Your task to perform on an android device: Add razer deathadder to the cart on costco Image 0: 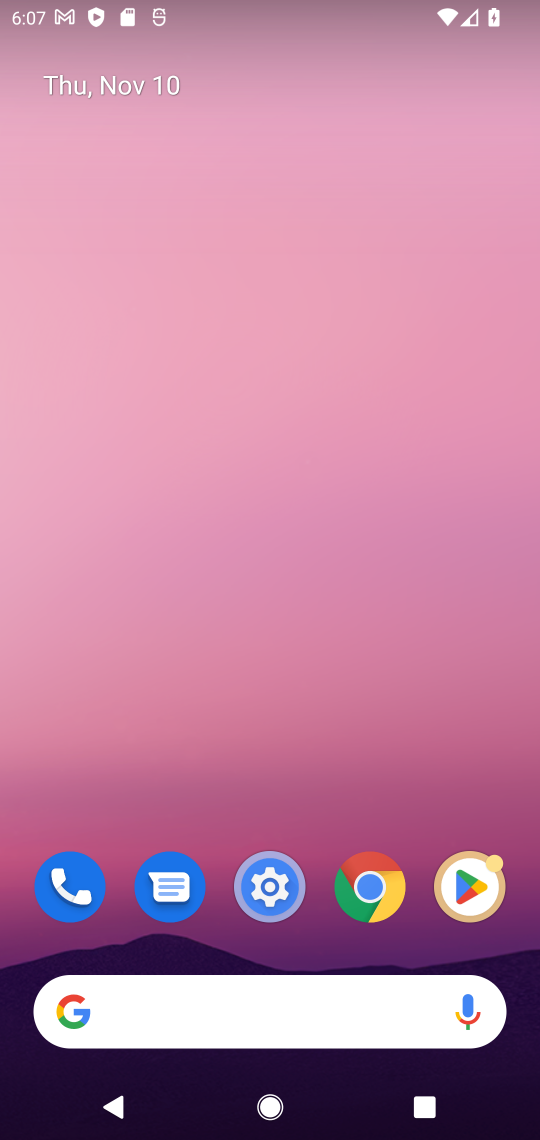
Step 0: click (162, 1006)
Your task to perform on an android device: Add razer deathadder to the cart on costco Image 1: 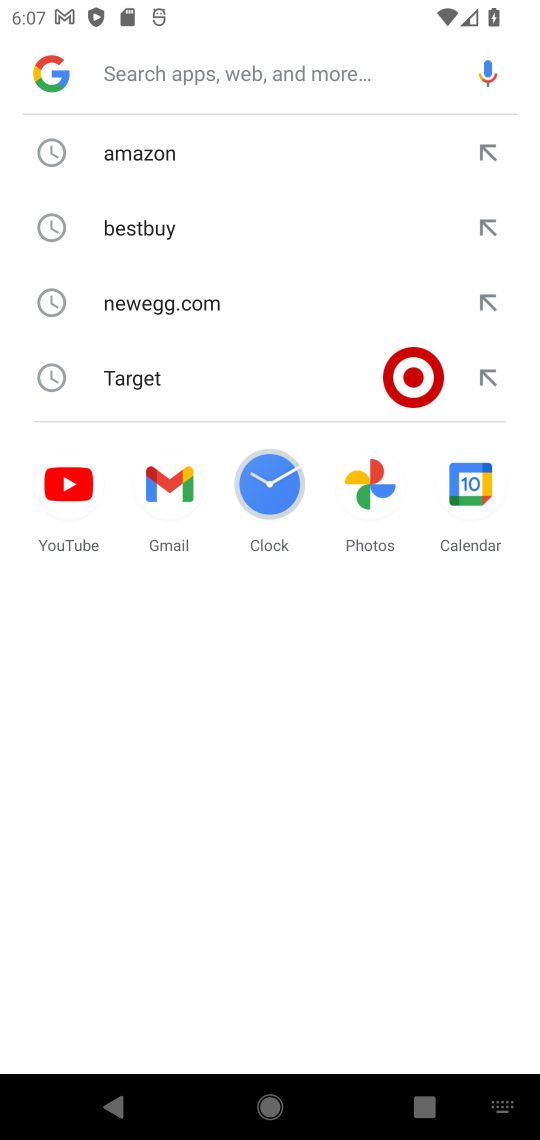
Step 1: type "costco"
Your task to perform on an android device: Add razer deathadder to the cart on costco Image 2: 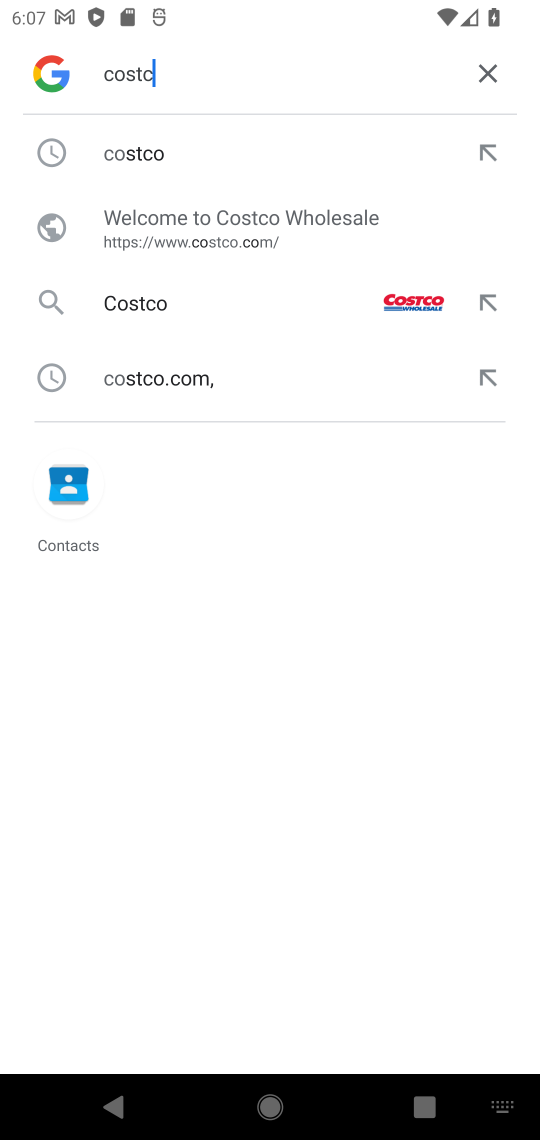
Step 2: type ""
Your task to perform on an android device: Add razer deathadder to the cart on costco Image 3: 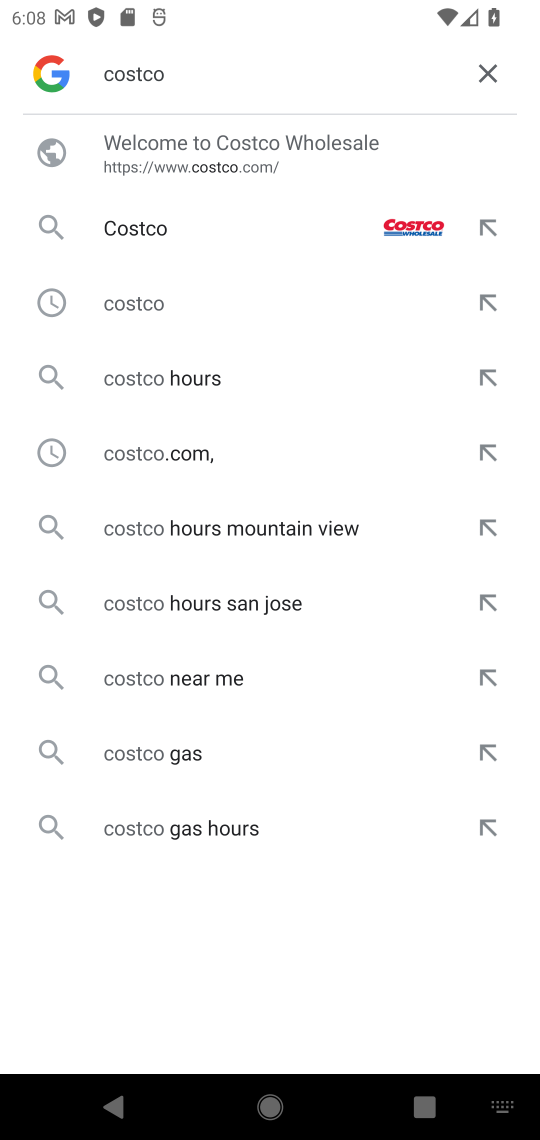
Step 3: click (147, 221)
Your task to perform on an android device: Add razer deathadder to the cart on costco Image 4: 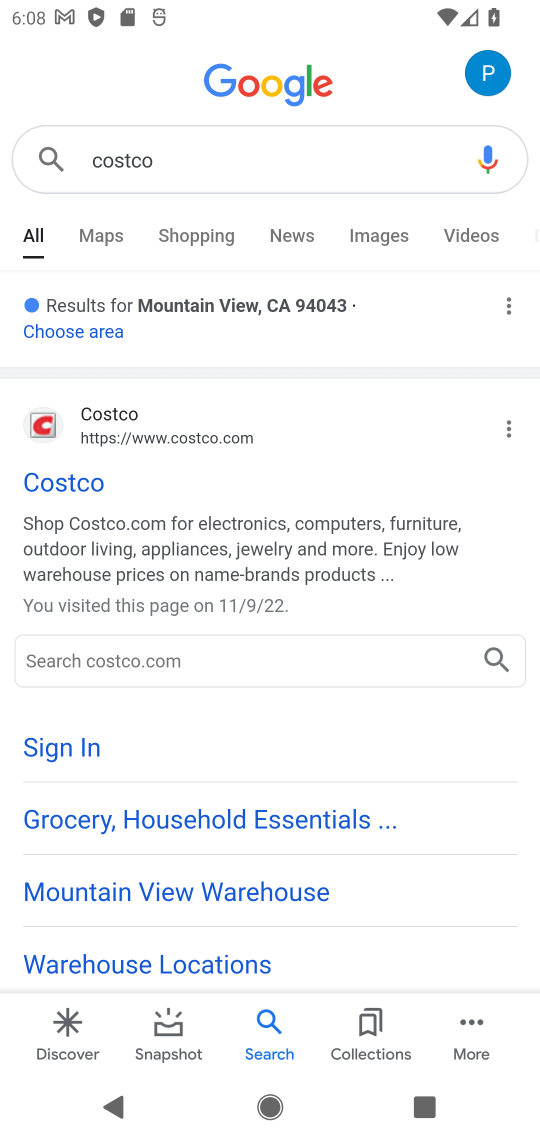
Step 4: click (43, 465)
Your task to perform on an android device: Add razer deathadder to the cart on costco Image 5: 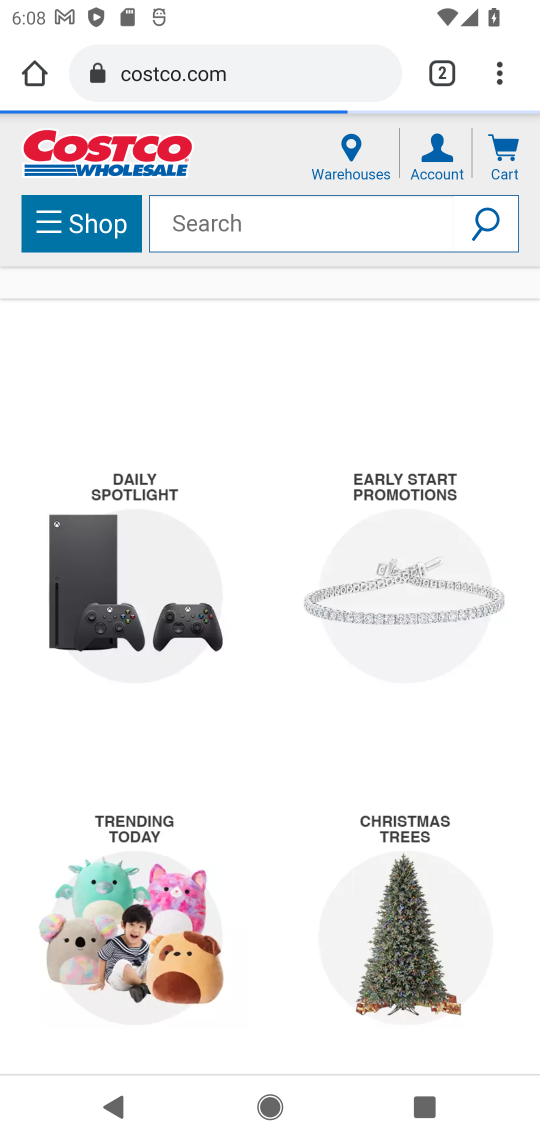
Step 5: click (214, 211)
Your task to perform on an android device: Add razer deathadder to the cart on costco Image 6: 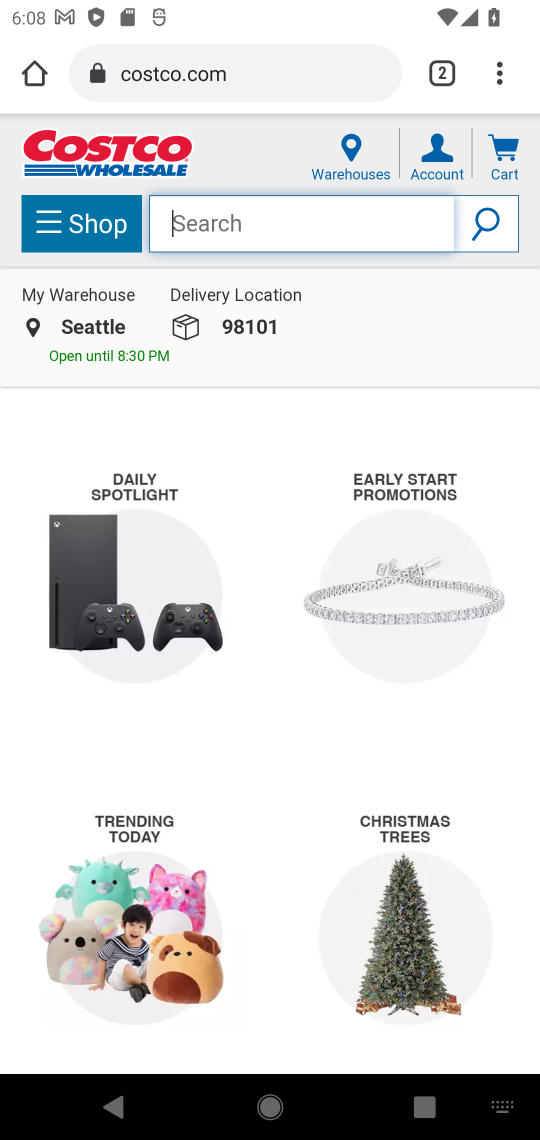
Step 6: type "razer deathadder"
Your task to perform on an android device: Add razer deathadder to the cart on costco Image 7: 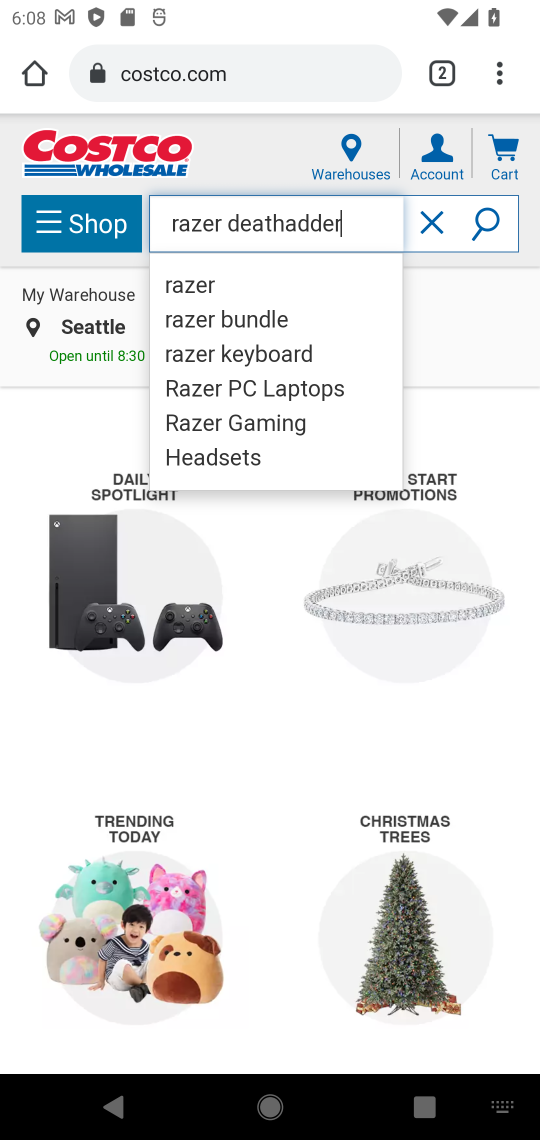
Step 7: click (485, 210)
Your task to perform on an android device: Add razer deathadder to the cart on costco Image 8: 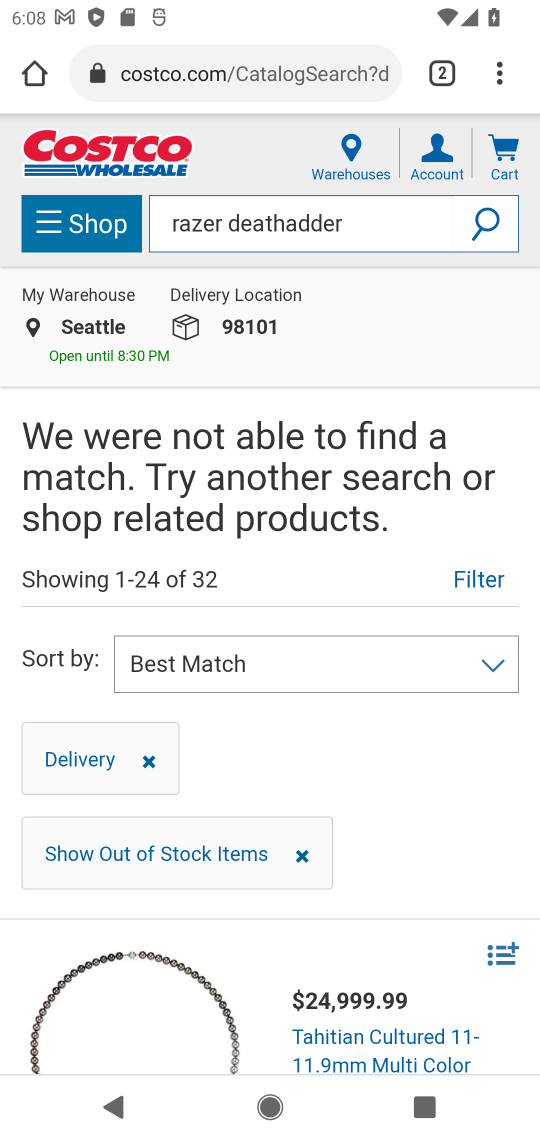
Step 8: task complete